Your task to perform on an android device: Go to ESPN.com Image 0: 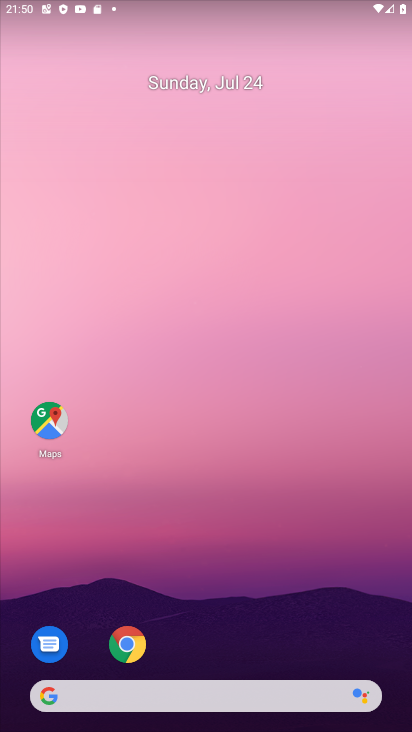
Step 0: click (129, 645)
Your task to perform on an android device: Go to ESPN.com Image 1: 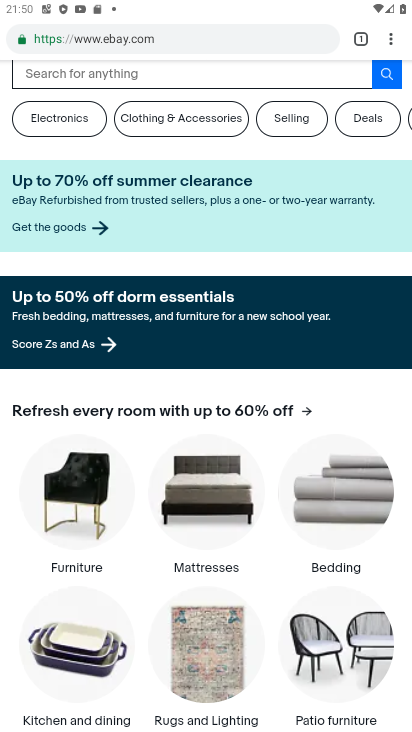
Step 1: click (197, 39)
Your task to perform on an android device: Go to ESPN.com Image 2: 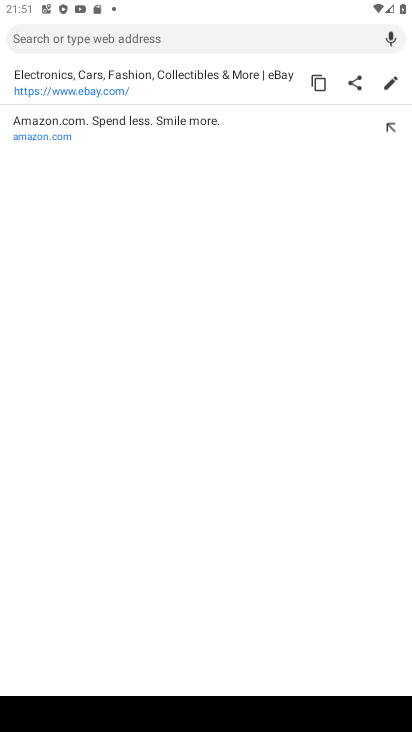
Step 2: type "ESPN.com"
Your task to perform on an android device: Go to ESPN.com Image 3: 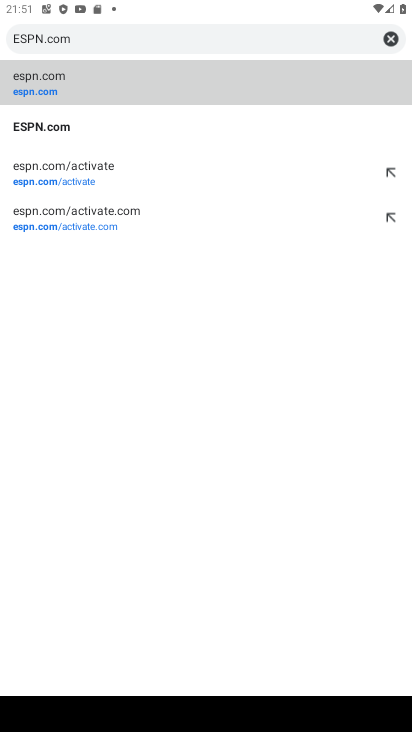
Step 3: click (36, 88)
Your task to perform on an android device: Go to ESPN.com Image 4: 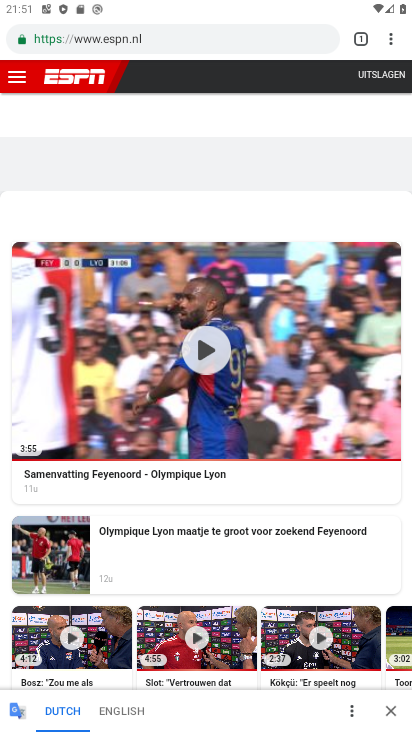
Step 4: drag from (256, 604) to (250, 170)
Your task to perform on an android device: Go to ESPN.com Image 5: 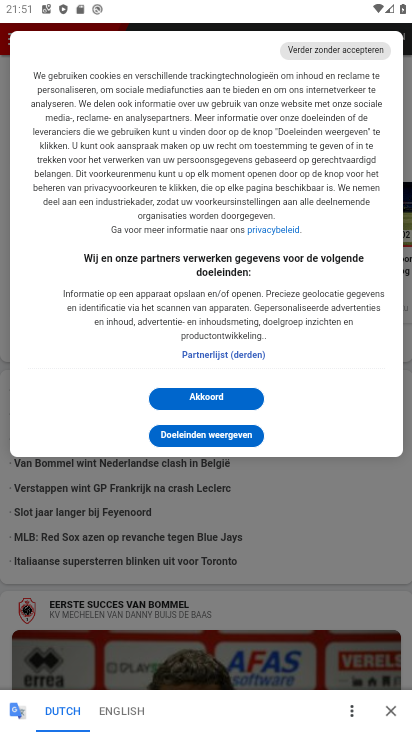
Step 5: click (207, 392)
Your task to perform on an android device: Go to ESPN.com Image 6: 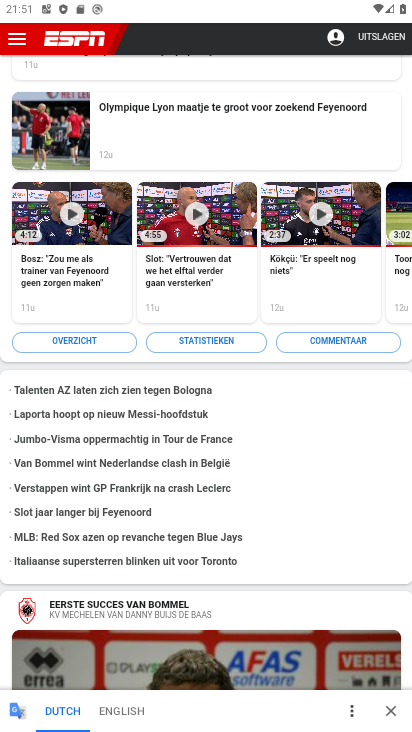
Step 6: task complete